Your task to perform on an android device: turn on bluetooth scan Image 0: 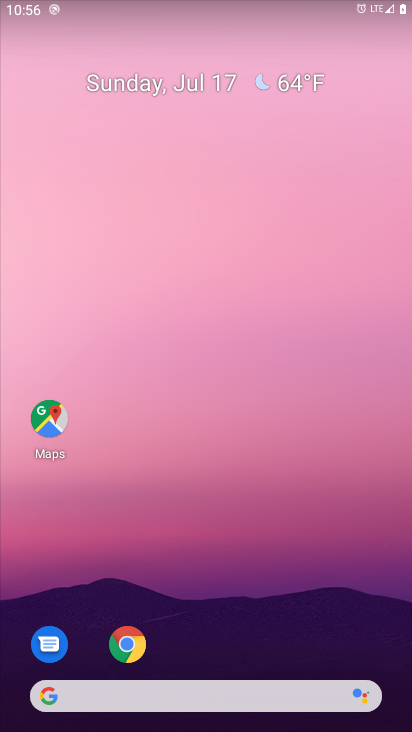
Step 0: press home button
Your task to perform on an android device: turn on bluetooth scan Image 1: 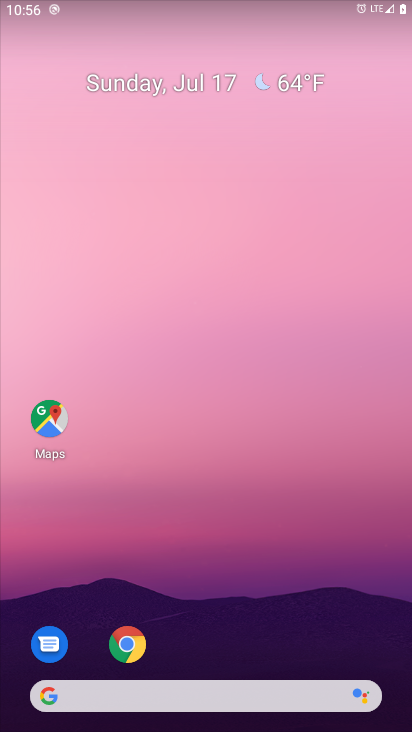
Step 1: drag from (262, 566) to (342, 130)
Your task to perform on an android device: turn on bluetooth scan Image 2: 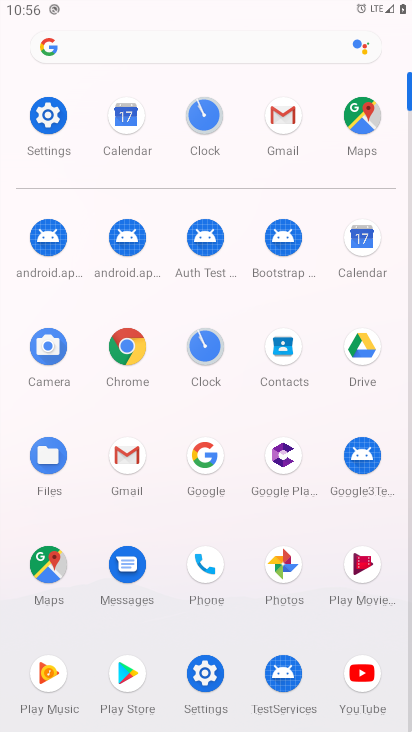
Step 2: click (42, 110)
Your task to perform on an android device: turn on bluetooth scan Image 3: 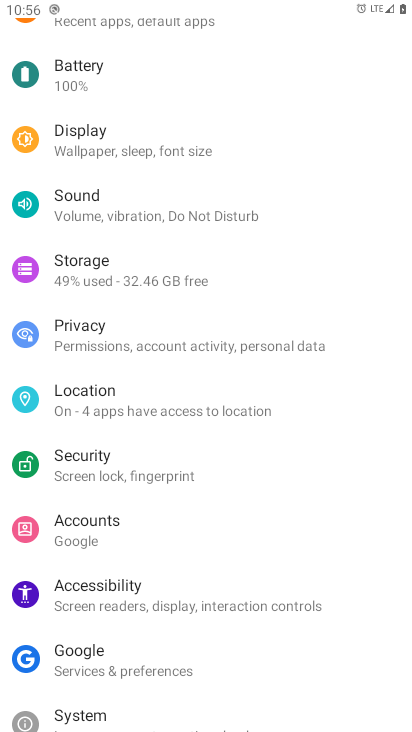
Step 3: click (127, 403)
Your task to perform on an android device: turn on bluetooth scan Image 4: 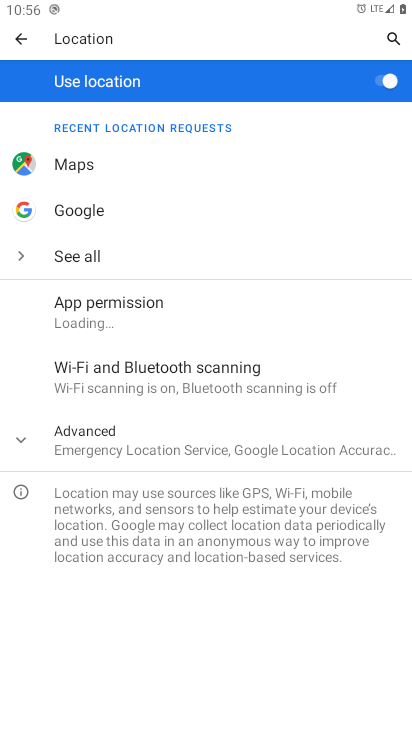
Step 4: click (153, 376)
Your task to perform on an android device: turn on bluetooth scan Image 5: 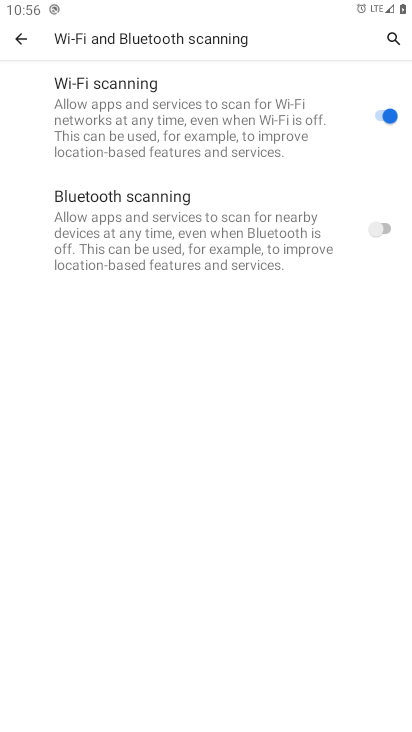
Step 5: click (390, 231)
Your task to perform on an android device: turn on bluetooth scan Image 6: 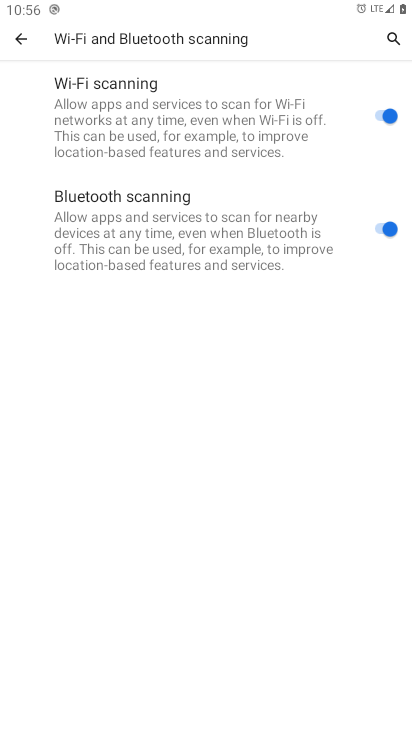
Step 6: task complete